Your task to perform on an android device: turn off notifications in google photos Image 0: 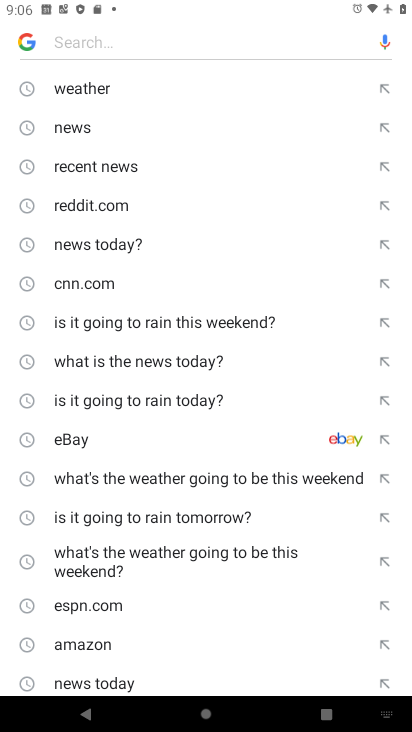
Step 0: press home button
Your task to perform on an android device: turn off notifications in google photos Image 1: 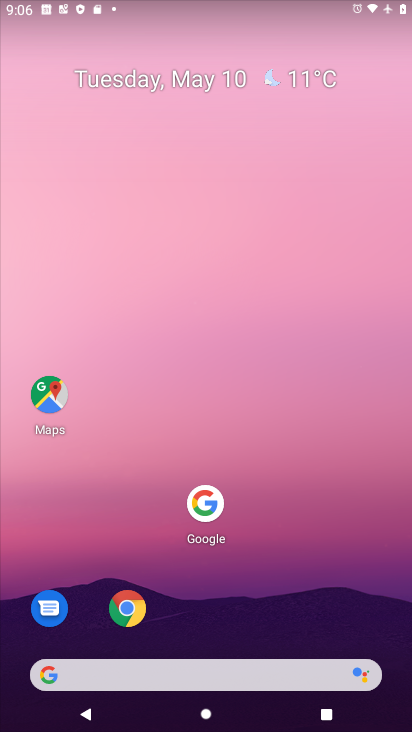
Step 1: drag from (170, 675) to (229, 194)
Your task to perform on an android device: turn off notifications in google photos Image 2: 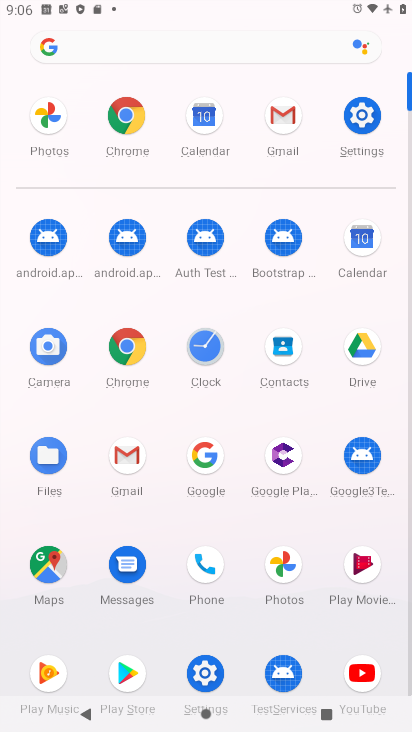
Step 2: click (288, 572)
Your task to perform on an android device: turn off notifications in google photos Image 3: 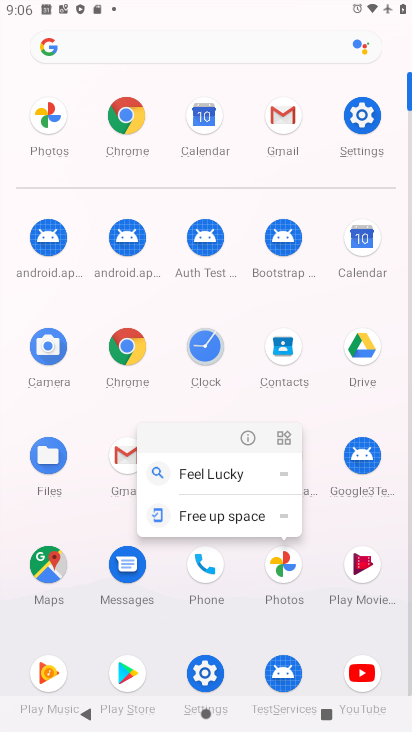
Step 3: click (284, 560)
Your task to perform on an android device: turn off notifications in google photos Image 4: 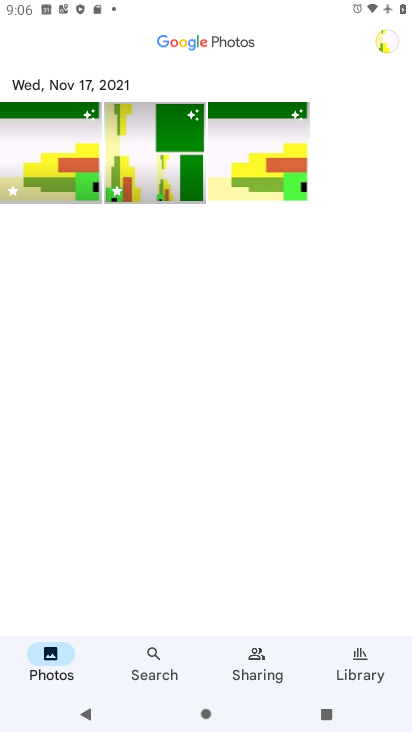
Step 4: click (389, 42)
Your task to perform on an android device: turn off notifications in google photos Image 5: 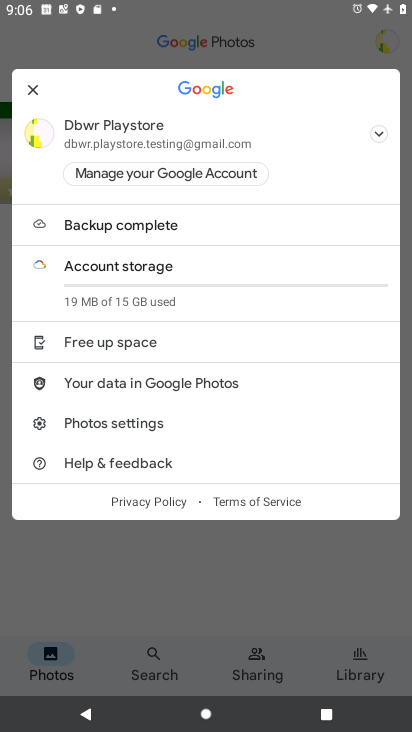
Step 5: click (120, 419)
Your task to perform on an android device: turn off notifications in google photos Image 6: 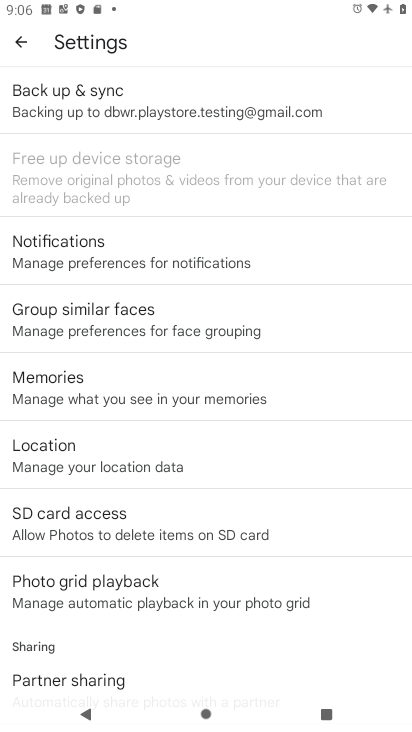
Step 6: click (197, 257)
Your task to perform on an android device: turn off notifications in google photos Image 7: 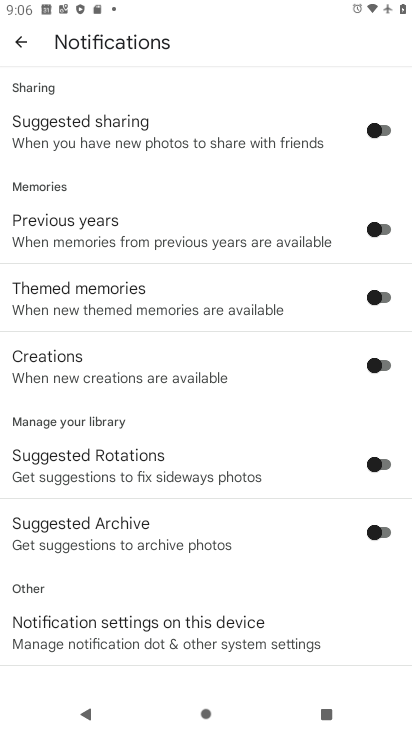
Step 7: click (163, 631)
Your task to perform on an android device: turn off notifications in google photos Image 8: 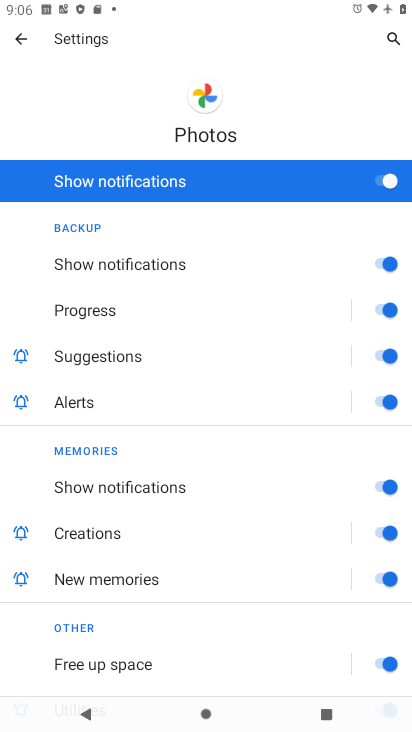
Step 8: click (386, 180)
Your task to perform on an android device: turn off notifications in google photos Image 9: 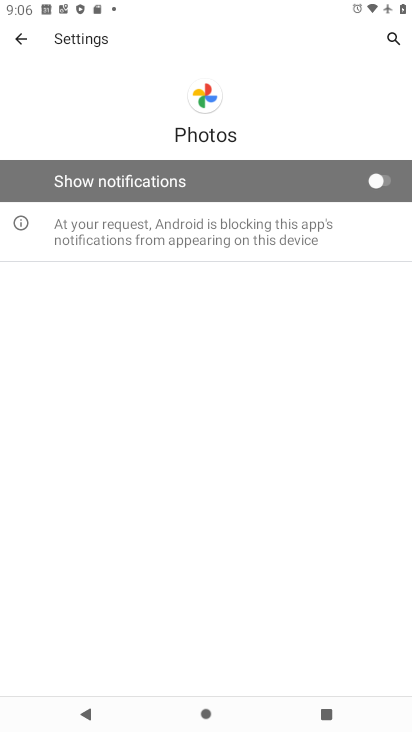
Step 9: task complete